Your task to perform on an android device: toggle improve location accuracy Image 0: 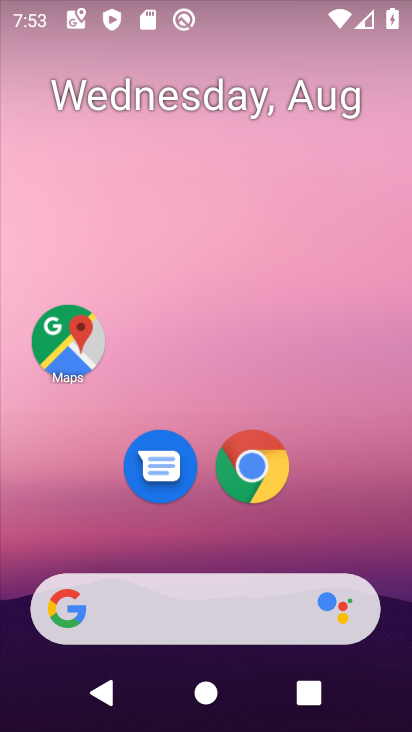
Step 0: drag from (350, 532) to (327, 120)
Your task to perform on an android device: toggle improve location accuracy Image 1: 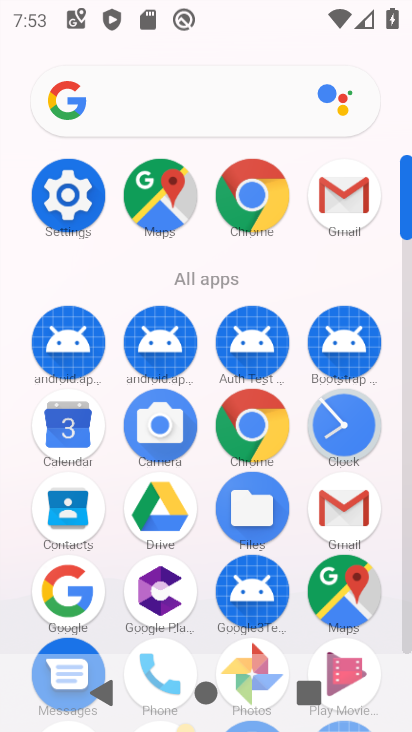
Step 1: click (81, 184)
Your task to perform on an android device: toggle improve location accuracy Image 2: 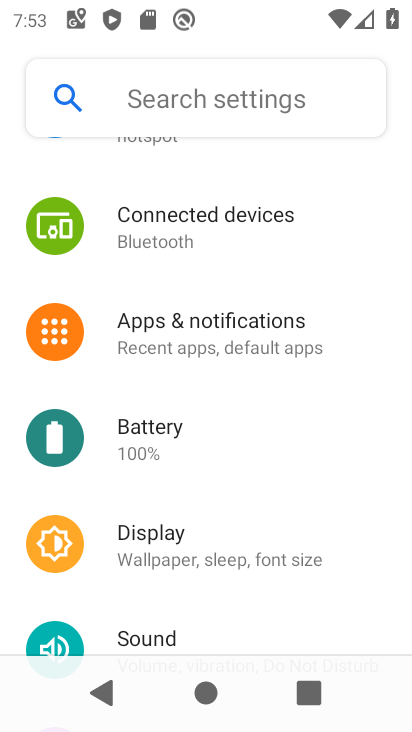
Step 2: click (279, 324)
Your task to perform on an android device: toggle improve location accuracy Image 3: 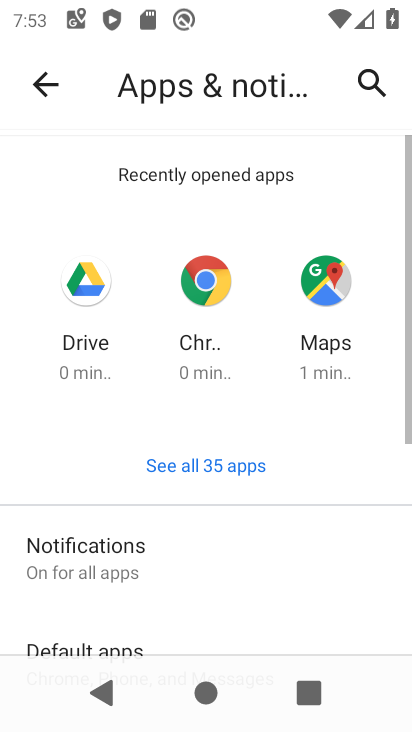
Step 3: click (163, 554)
Your task to perform on an android device: toggle improve location accuracy Image 4: 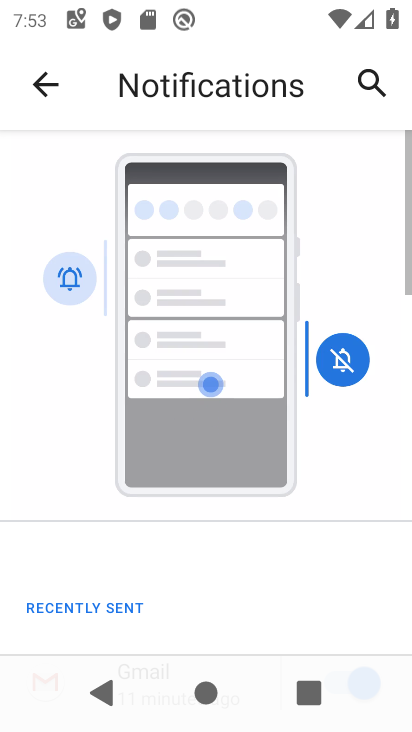
Step 4: drag from (258, 565) to (323, 63)
Your task to perform on an android device: toggle improve location accuracy Image 5: 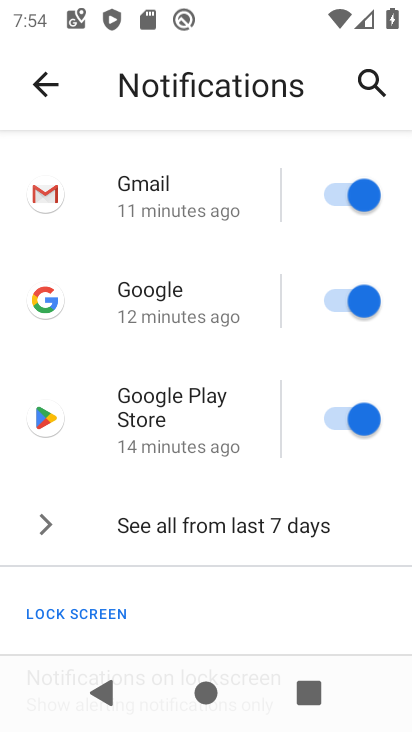
Step 5: drag from (297, 618) to (290, 141)
Your task to perform on an android device: toggle improve location accuracy Image 6: 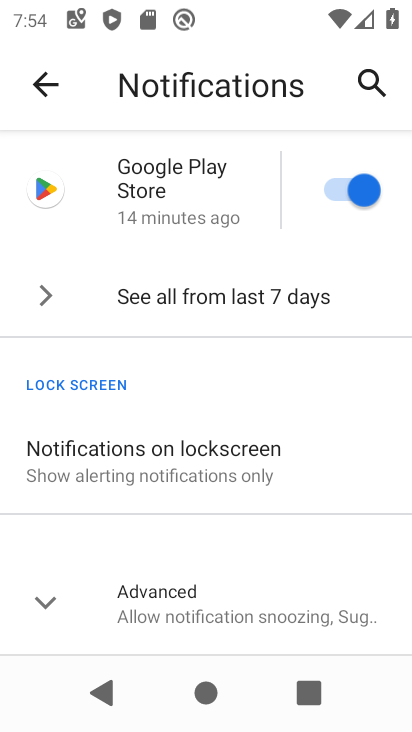
Step 6: click (136, 614)
Your task to perform on an android device: toggle improve location accuracy Image 7: 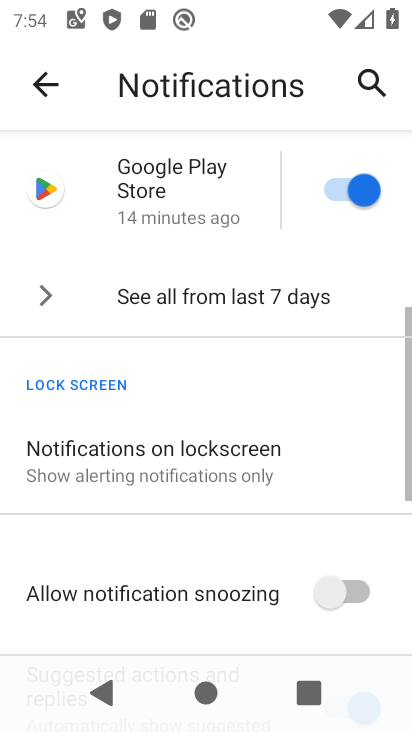
Step 7: drag from (270, 550) to (255, 192)
Your task to perform on an android device: toggle improve location accuracy Image 8: 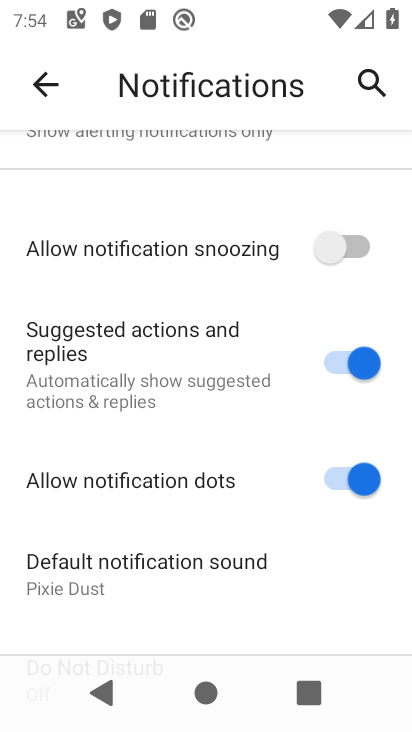
Step 8: drag from (326, 588) to (291, 220)
Your task to perform on an android device: toggle improve location accuracy Image 9: 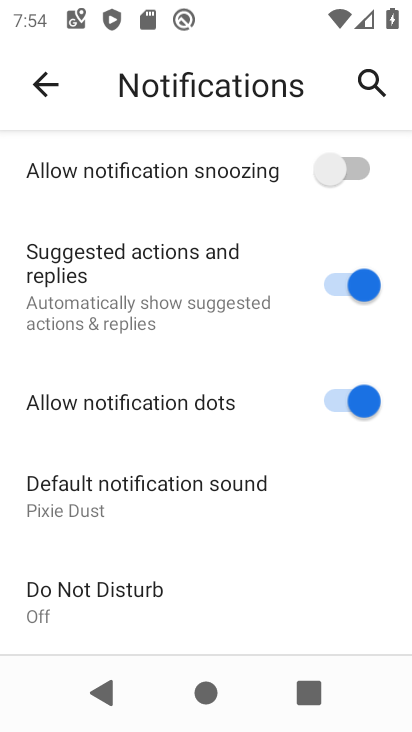
Step 9: drag from (281, 232) to (168, 562)
Your task to perform on an android device: toggle improve location accuracy Image 10: 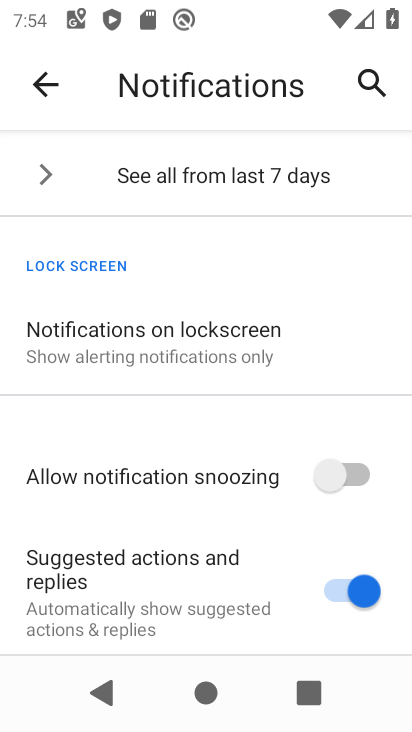
Step 10: click (40, 74)
Your task to perform on an android device: toggle improve location accuracy Image 11: 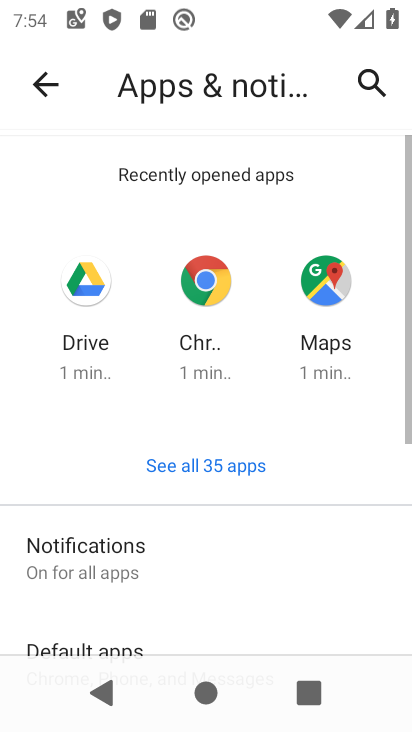
Step 11: click (40, 74)
Your task to perform on an android device: toggle improve location accuracy Image 12: 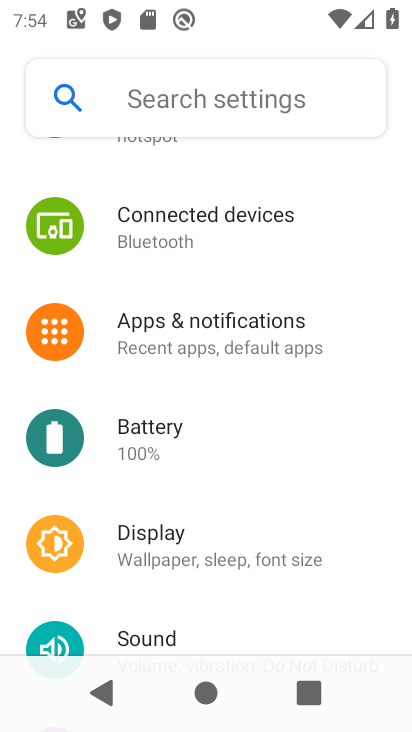
Step 12: drag from (332, 562) to (341, 302)
Your task to perform on an android device: toggle improve location accuracy Image 13: 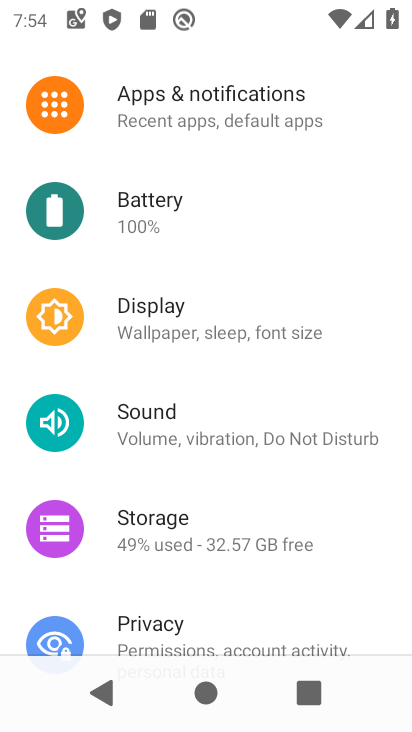
Step 13: drag from (333, 523) to (356, 222)
Your task to perform on an android device: toggle improve location accuracy Image 14: 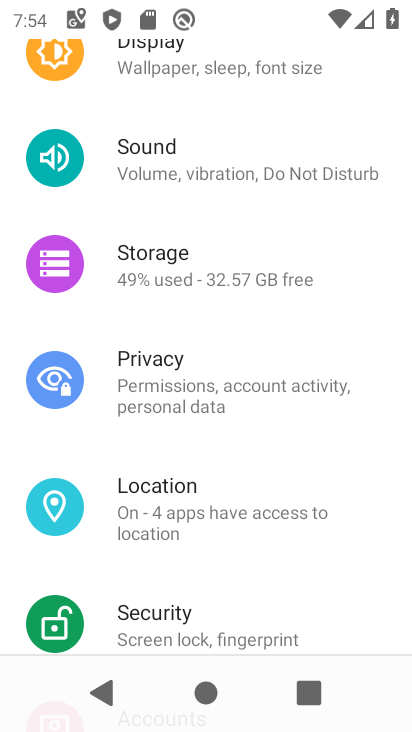
Step 14: click (197, 485)
Your task to perform on an android device: toggle improve location accuracy Image 15: 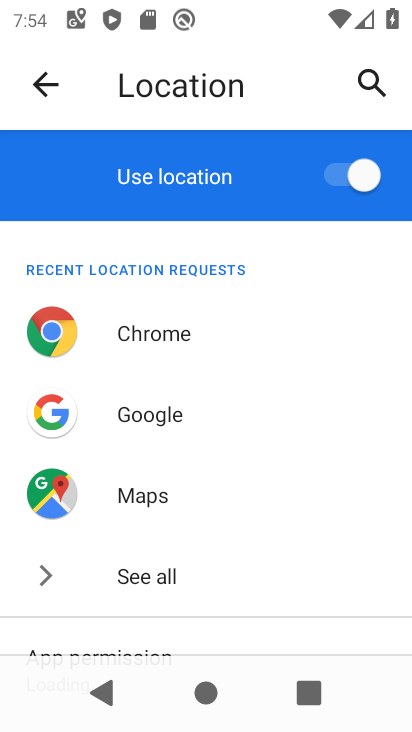
Step 15: drag from (334, 575) to (302, 255)
Your task to perform on an android device: toggle improve location accuracy Image 16: 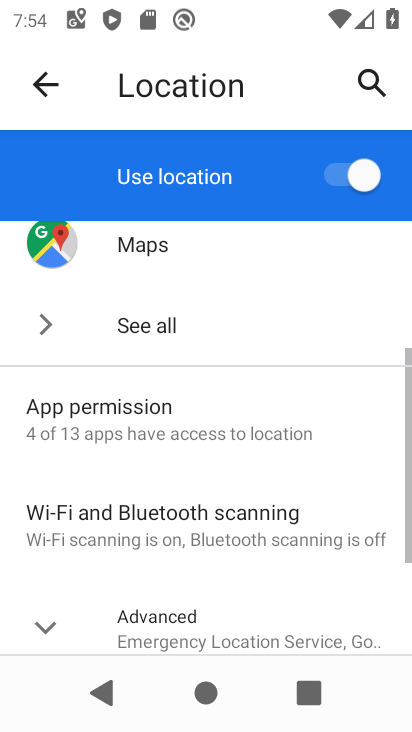
Step 16: drag from (341, 532) to (346, 341)
Your task to perform on an android device: toggle improve location accuracy Image 17: 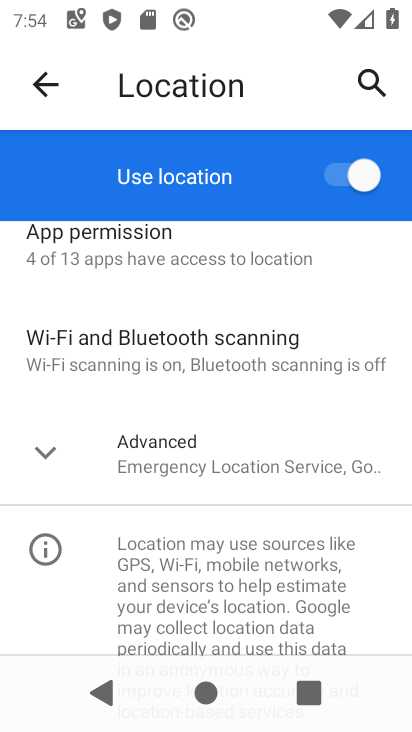
Step 17: click (227, 480)
Your task to perform on an android device: toggle improve location accuracy Image 18: 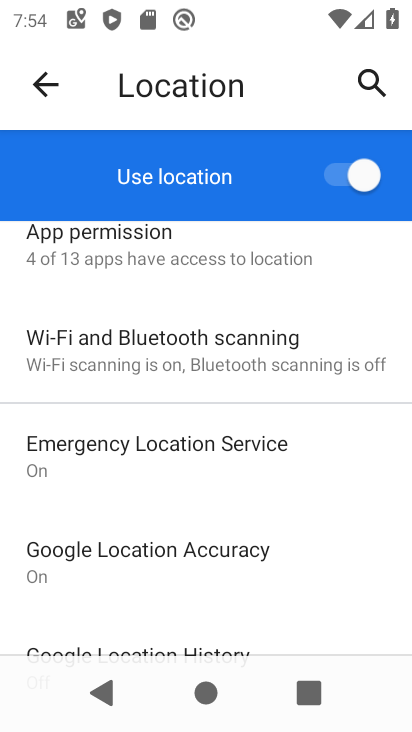
Step 18: drag from (308, 599) to (305, 350)
Your task to perform on an android device: toggle improve location accuracy Image 19: 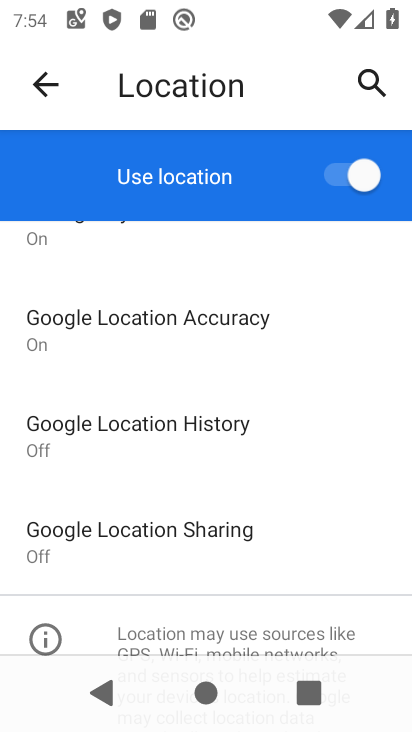
Step 19: click (201, 317)
Your task to perform on an android device: toggle improve location accuracy Image 20: 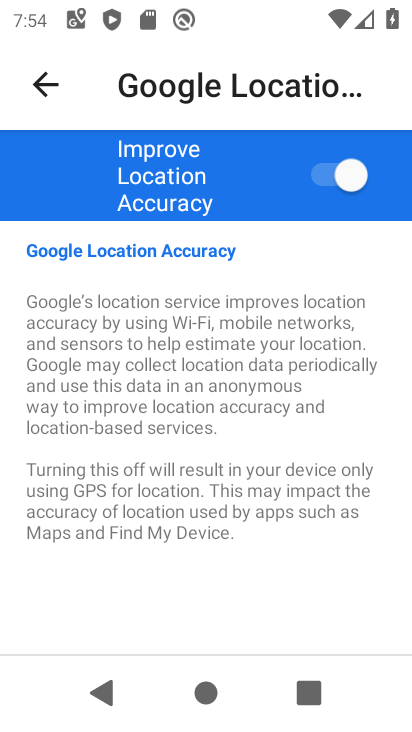
Step 20: click (312, 166)
Your task to perform on an android device: toggle improve location accuracy Image 21: 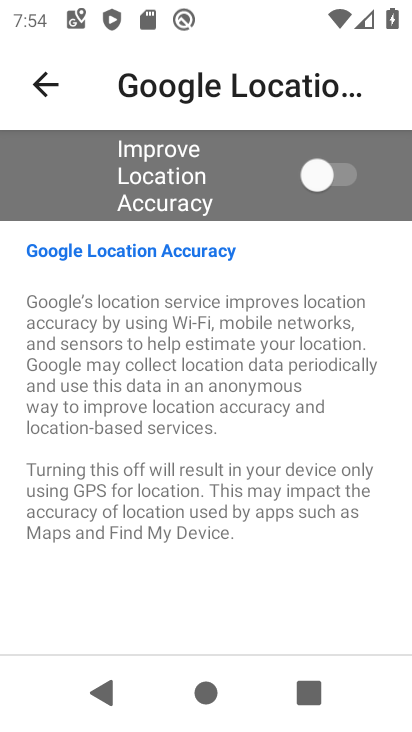
Step 21: task complete